Your task to perform on an android device: empty trash in the gmail app Image 0: 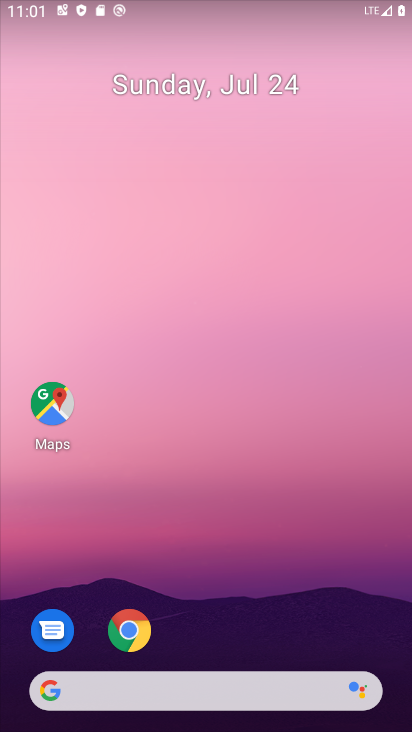
Step 0: drag from (215, 630) to (183, 209)
Your task to perform on an android device: empty trash in the gmail app Image 1: 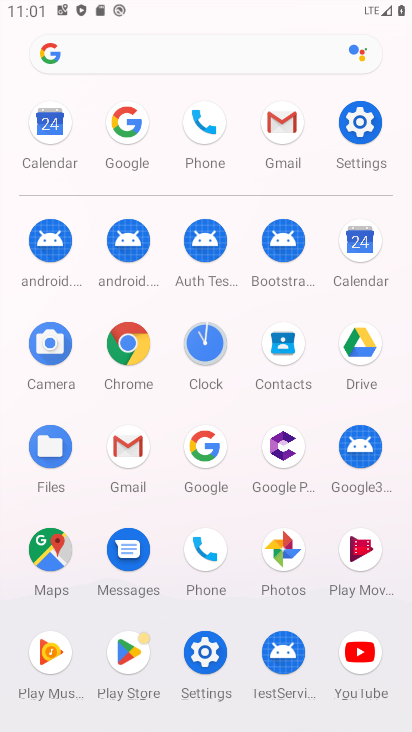
Step 1: click (258, 141)
Your task to perform on an android device: empty trash in the gmail app Image 2: 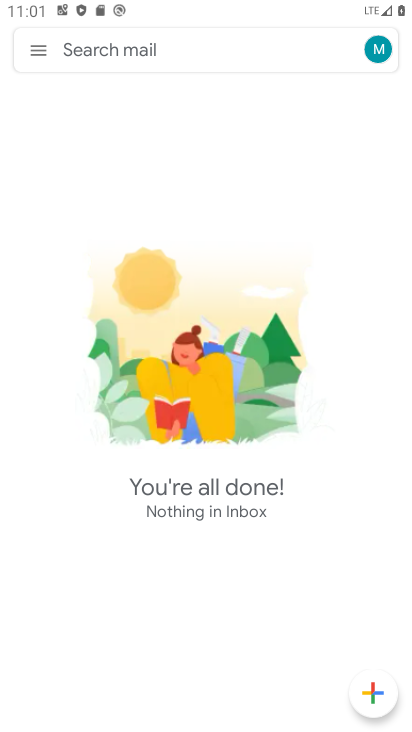
Step 2: click (38, 61)
Your task to perform on an android device: empty trash in the gmail app Image 3: 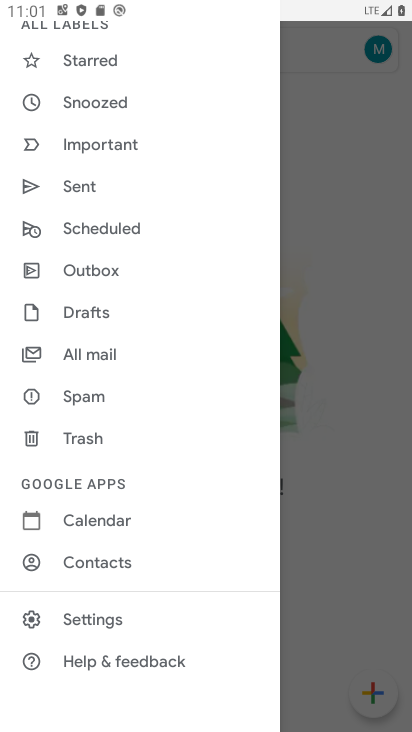
Step 3: click (149, 435)
Your task to perform on an android device: empty trash in the gmail app Image 4: 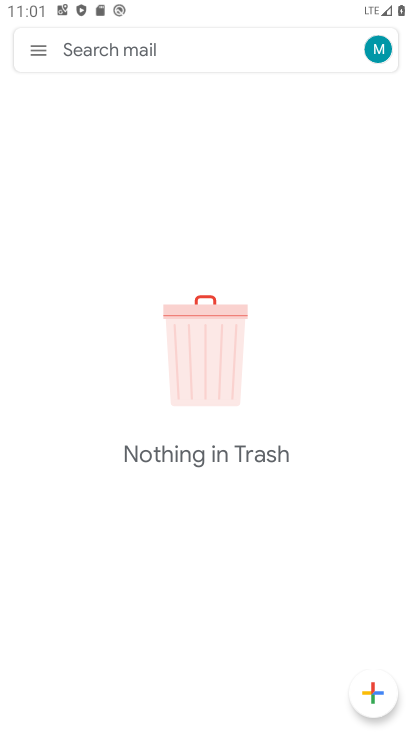
Step 4: task complete